Your task to perform on an android device: Search for Italian restaurants on Maps Image 0: 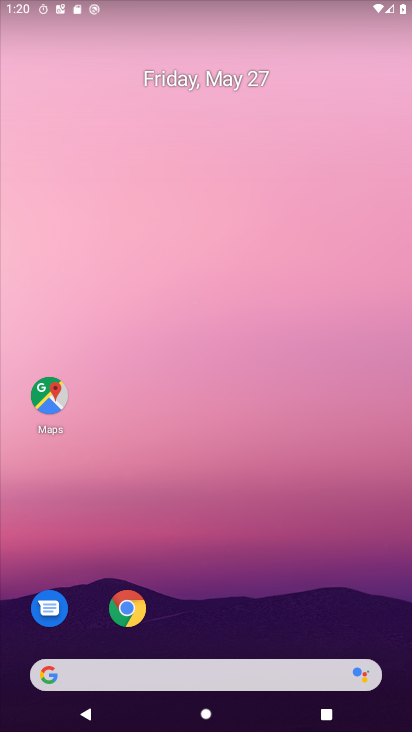
Step 0: click (41, 394)
Your task to perform on an android device: Search for Italian restaurants on Maps Image 1: 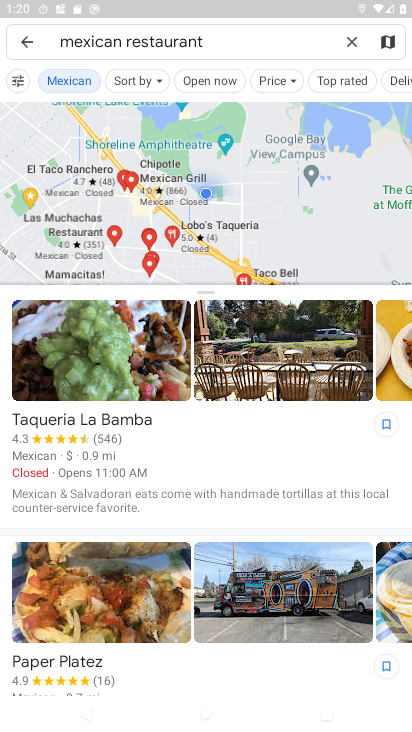
Step 1: click (354, 42)
Your task to perform on an android device: Search for Italian restaurants on Maps Image 2: 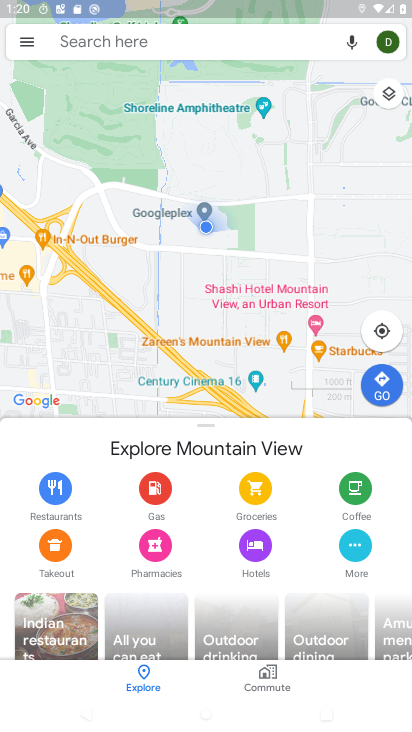
Step 2: type "Italian restaurants"
Your task to perform on an android device: Search for Italian restaurants on Maps Image 3: 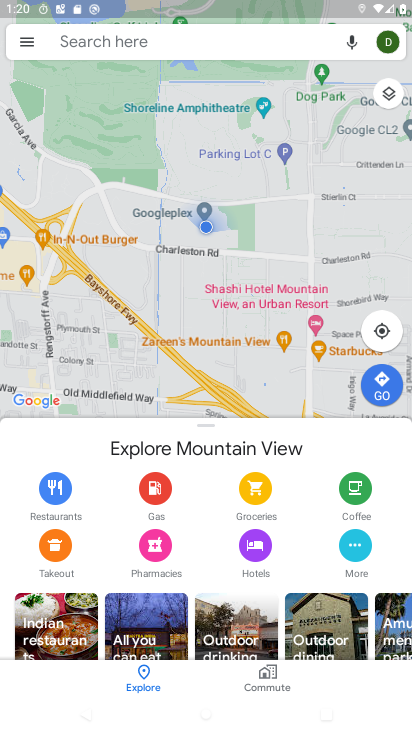
Step 3: click (85, 48)
Your task to perform on an android device: Search for Italian restaurants on Maps Image 4: 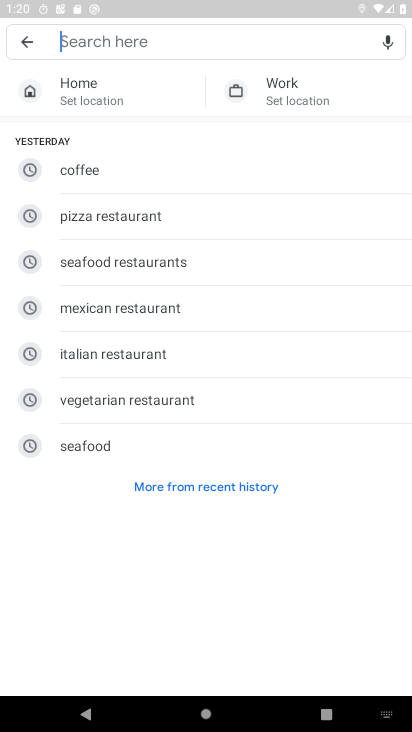
Step 4: type "Italian restaurants"
Your task to perform on an android device: Search for Italian restaurants on Maps Image 5: 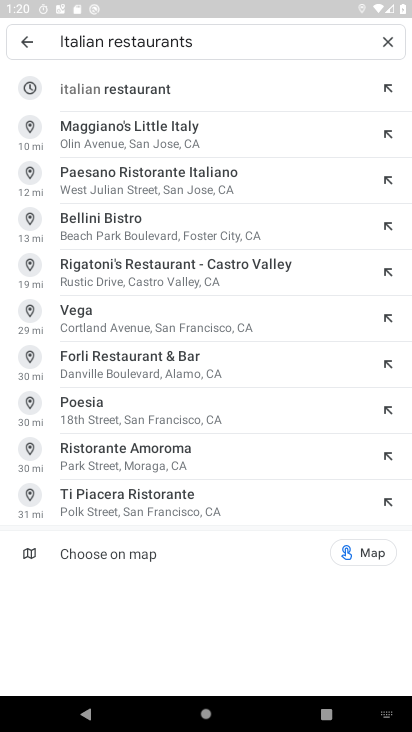
Step 5: click (89, 87)
Your task to perform on an android device: Search for Italian restaurants on Maps Image 6: 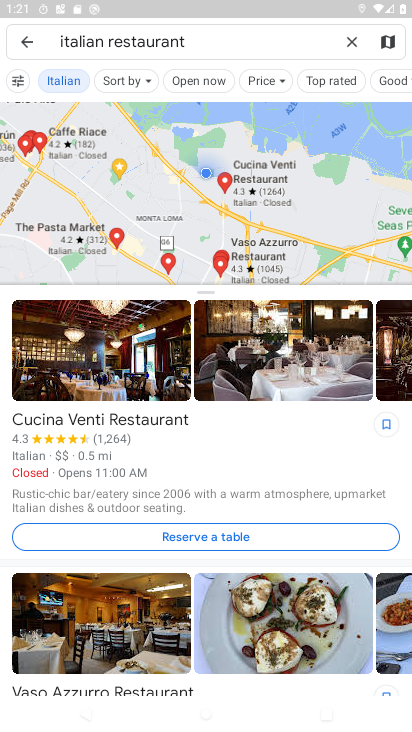
Step 6: task complete